Your task to perform on an android device: choose inbox layout in the gmail app Image 0: 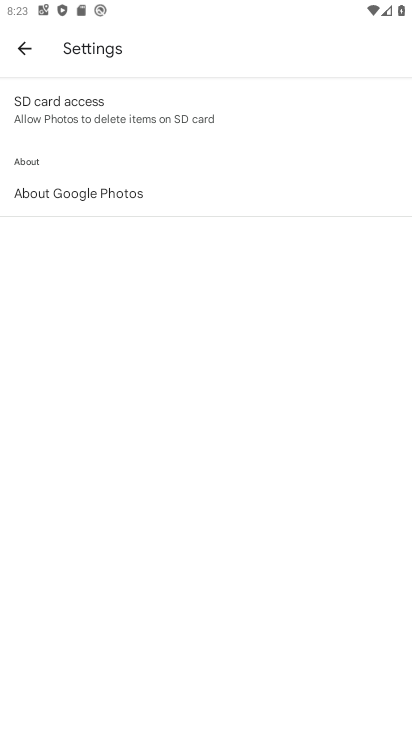
Step 0: press home button
Your task to perform on an android device: choose inbox layout in the gmail app Image 1: 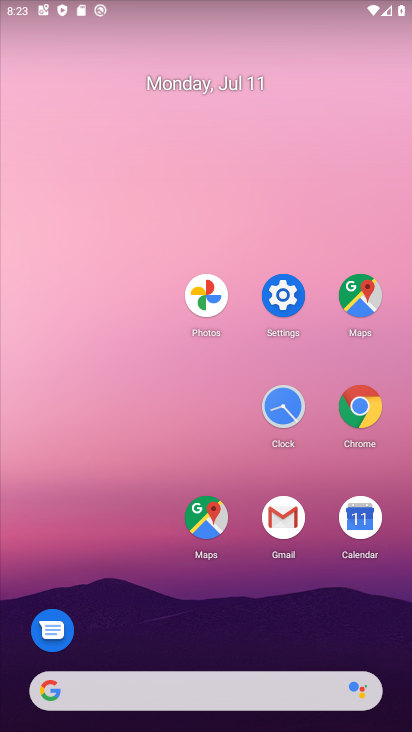
Step 1: click (275, 516)
Your task to perform on an android device: choose inbox layout in the gmail app Image 2: 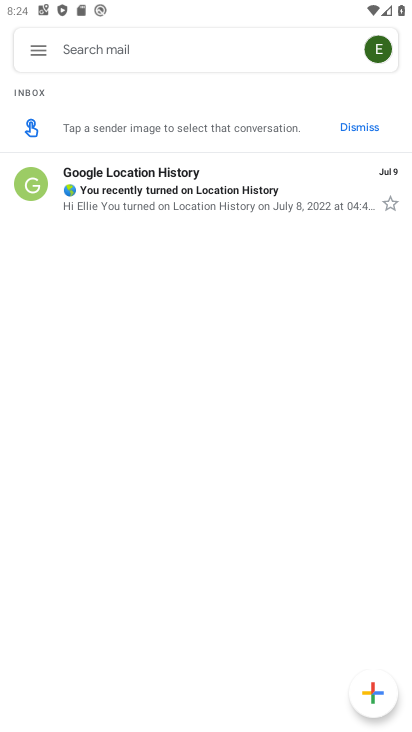
Step 2: press home button
Your task to perform on an android device: choose inbox layout in the gmail app Image 3: 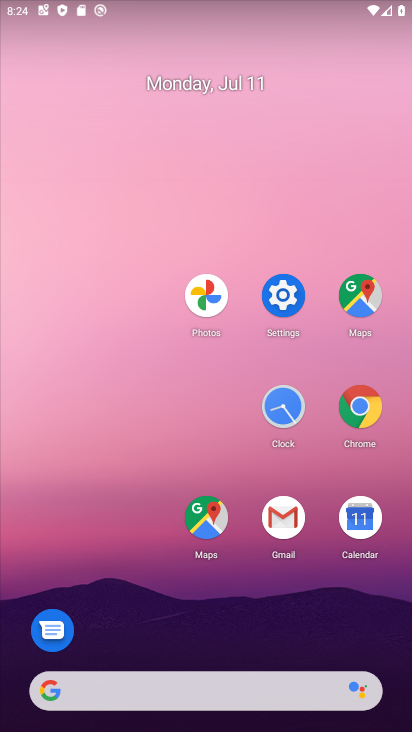
Step 3: click (273, 523)
Your task to perform on an android device: choose inbox layout in the gmail app Image 4: 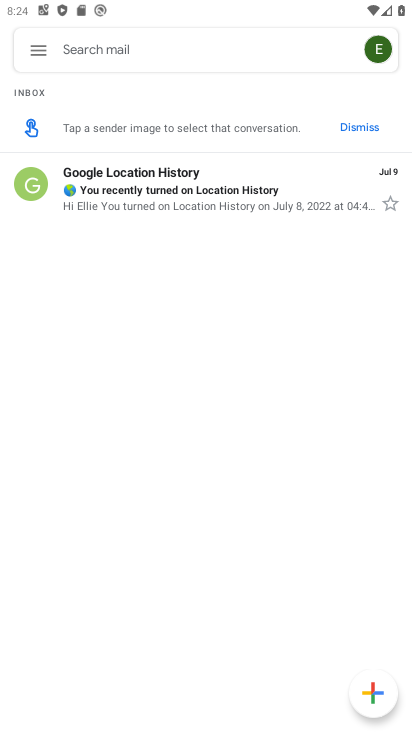
Step 4: click (34, 66)
Your task to perform on an android device: choose inbox layout in the gmail app Image 5: 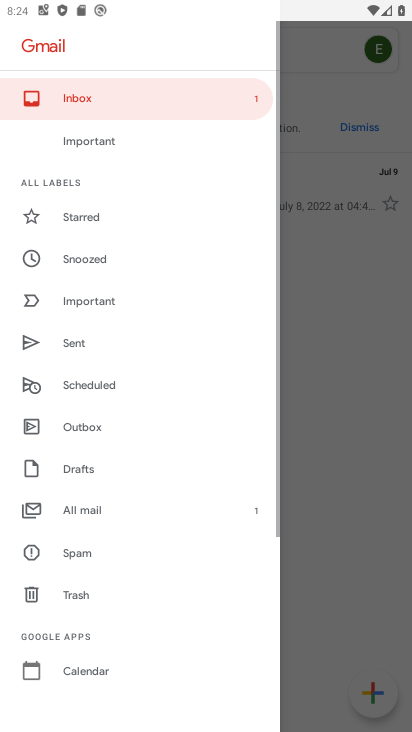
Step 5: drag from (129, 520) to (103, 188)
Your task to perform on an android device: choose inbox layout in the gmail app Image 6: 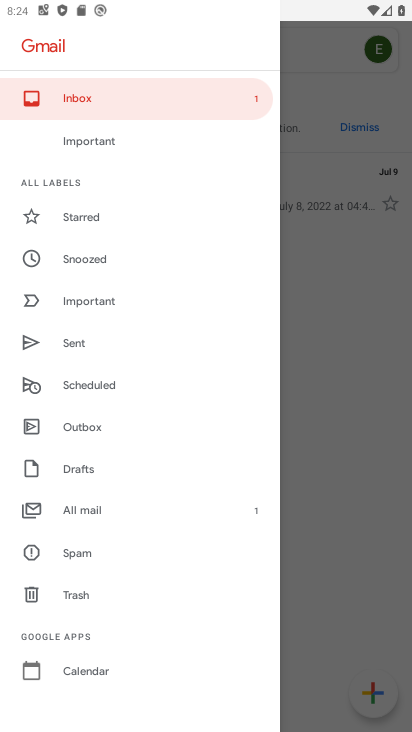
Step 6: drag from (129, 528) to (160, 279)
Your task to perform on an android device: choose inbox layout in the gmail app Image 7: 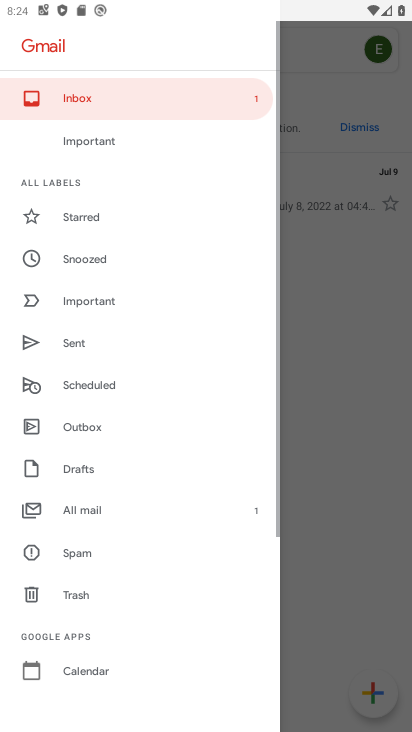
Step 7: drag from (142, 575) to (154, 248)
Your task to perform on an android device: choose inbox layout in the gmail app Image 8: 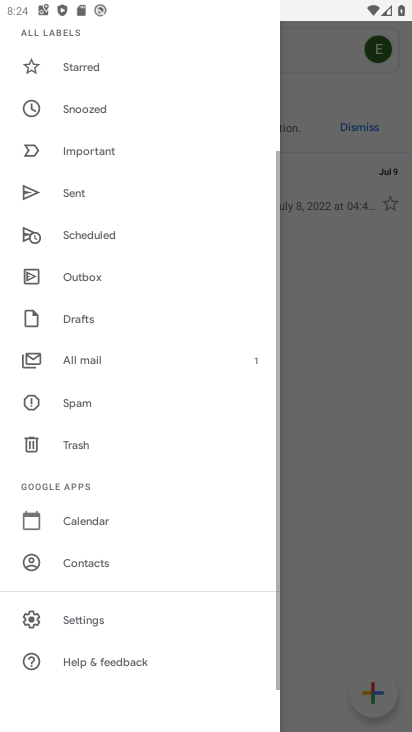
Step 8: click (115, 609)
Your task to perform on an android device: choose inbox layout in the gmail app Image 9: 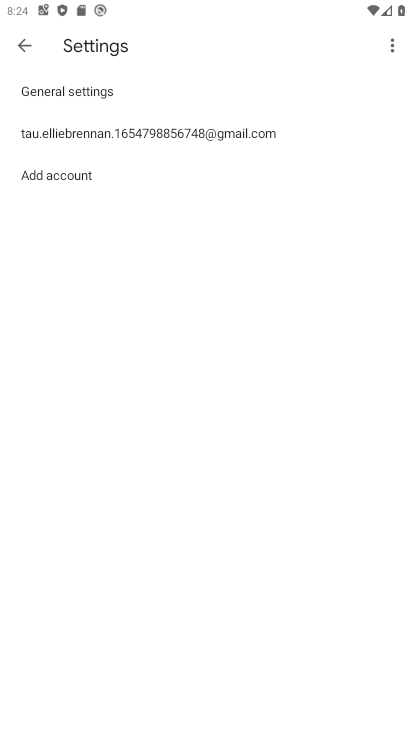
Step 9: click (110, 133)
Your task to perform on an android device: choose inbox layout in the gmail app Image 10: 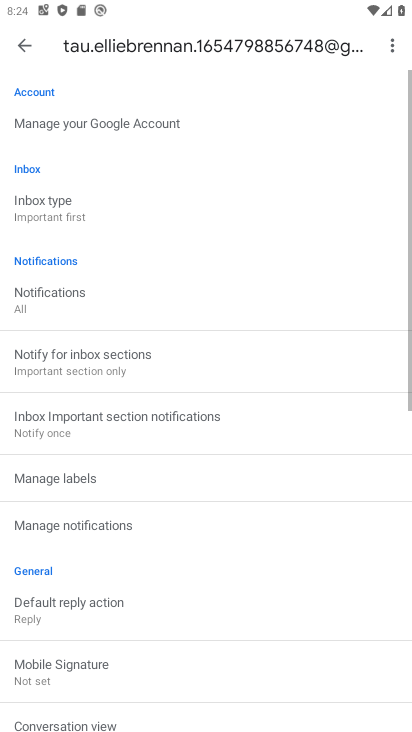
Step 10: click (137, 200)
Your task to perform on an android device: choose inbox layout in the gmail app Image 11: 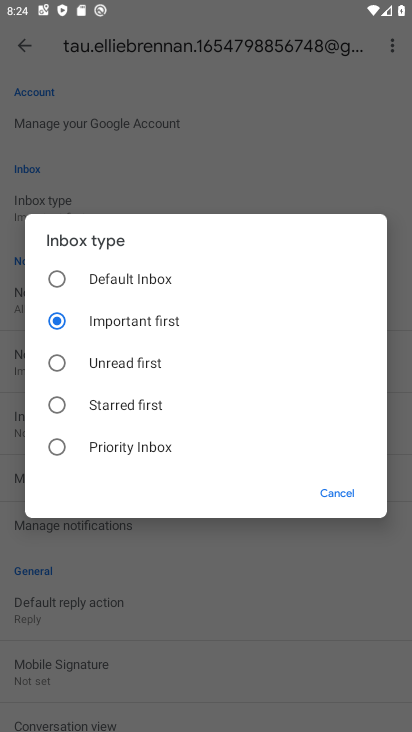
Step 11: task complete